Your task to perform on an android device: Open calendar and show me the third week of next month Image 0: 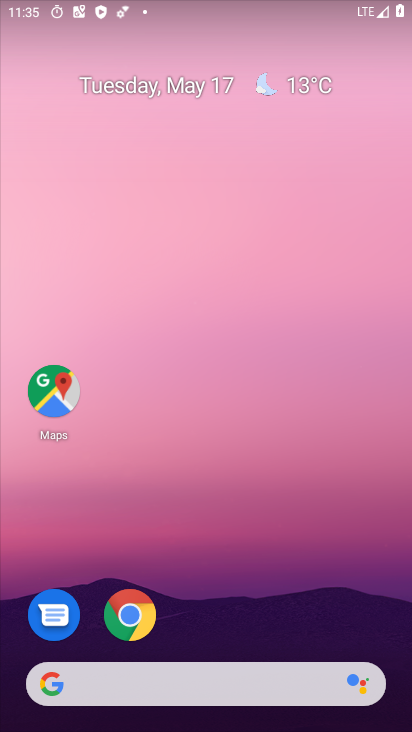
Step 0: press home button
Your task to perform on an android device: Open calendar and show me the third week of next month Image 1: 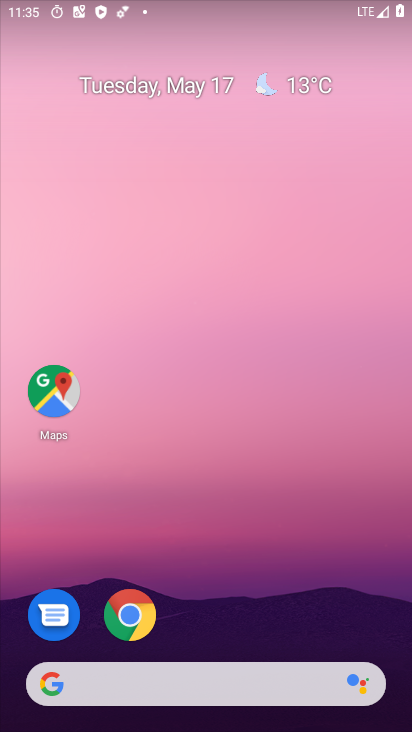
Step 1: drag from (222, 638) to (335, 194)
Your task to perform on an android device: Open calendar and show me the third week of next month Image 2: 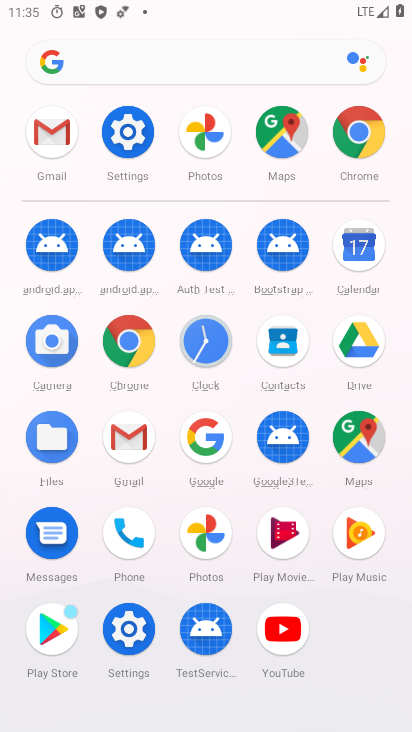
Step 2: click (354, 261)
Your task to perform on an android device: Open calendar and show me the third week of next month Image 3: 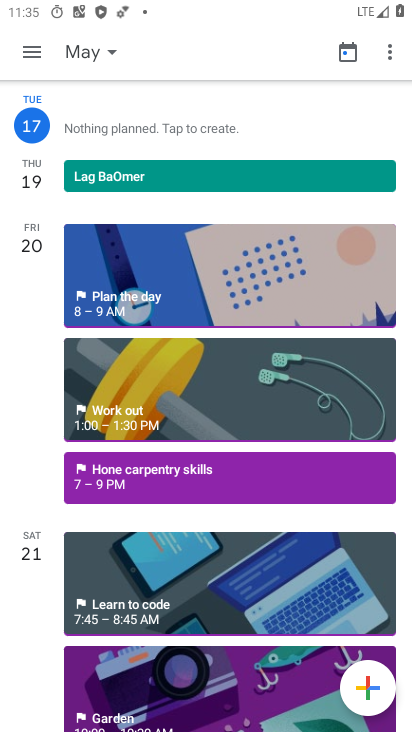
Step 3: click (84, 55)
Your task to perform on an android device: Open calendar and show me the third week of next month Image 4: 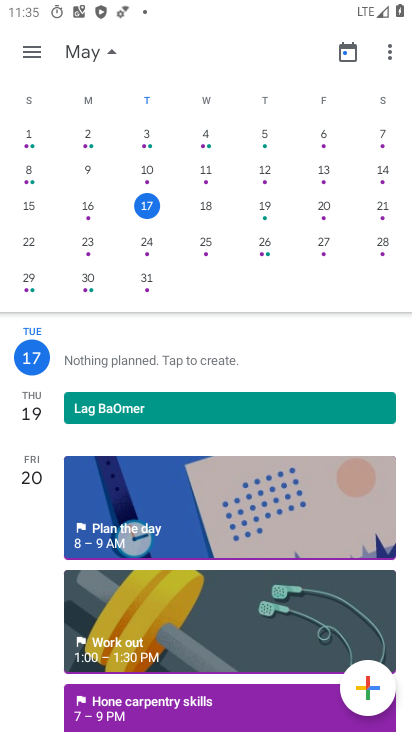
Step 4: drag from (371, 192) to (16, 207)
Your task to perform on an android device: Open calendar and show me the third week of next month Image 5: 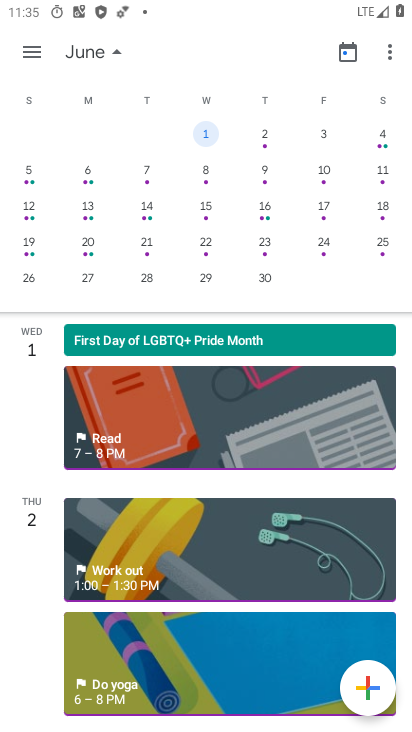
Step 5: click (31, 215)
Your task to perform on an android device: Open calendar and show me the third week of next month Image 6: 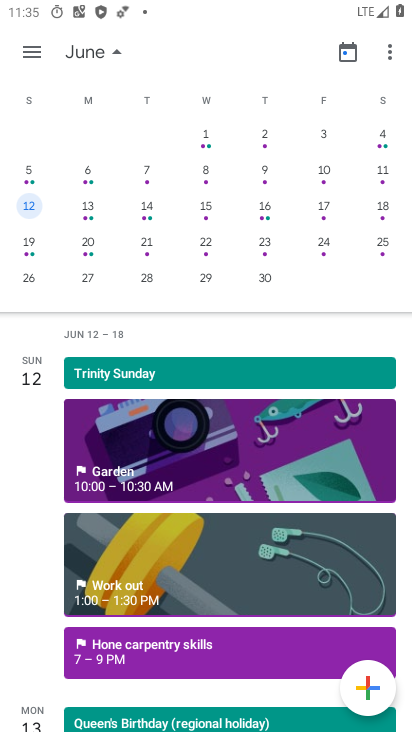
Step 6: click (31, 51)
Your task to perform on an android device: Open calendar and show me the third week of next month Image 7: 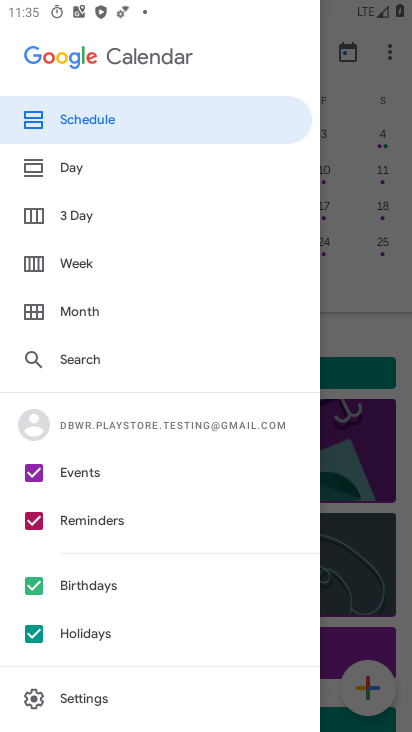
Step 7: click (83, 265)
Your task to perform on an android device: Open calendar and show me the third week of next month Image 8: 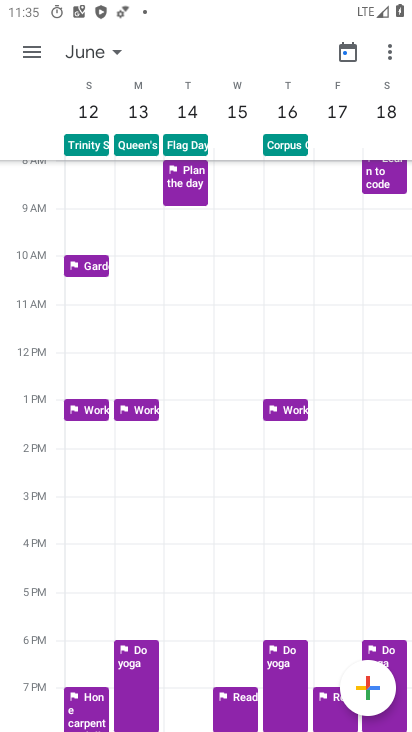
Step 8: click (42, 48)
Your task to perform on an android device: Open calendar and show me the third week of next month Image 9: 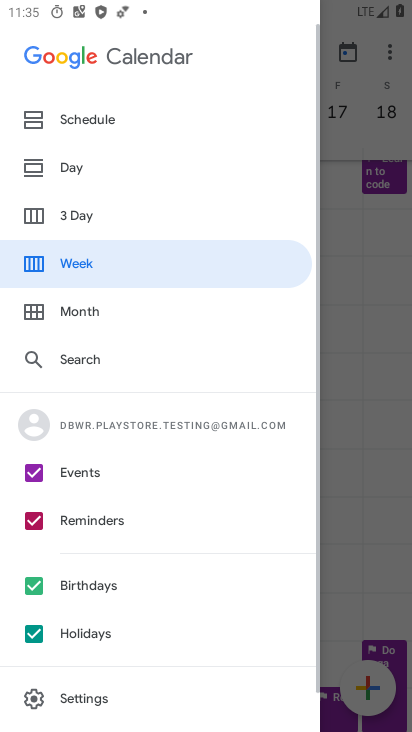
Step 9: click (76, 123)
Your task to perform on an android device: Open calendar and show me the third week of next month Image 10: 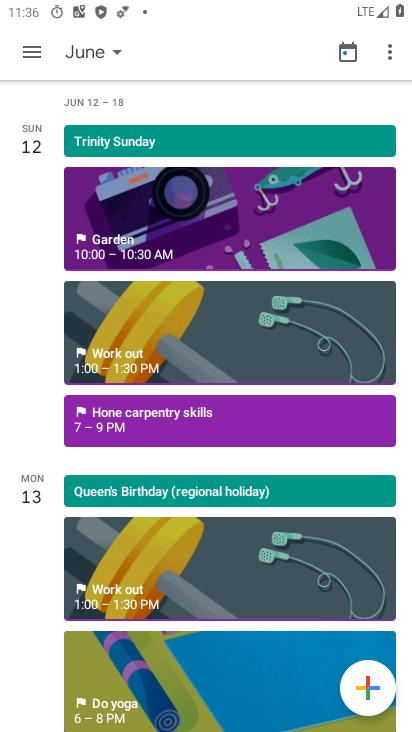
Step 10: click (32, 49)
Your task to perform on an android device: Open calendar and show me the third week of next month Image 11: 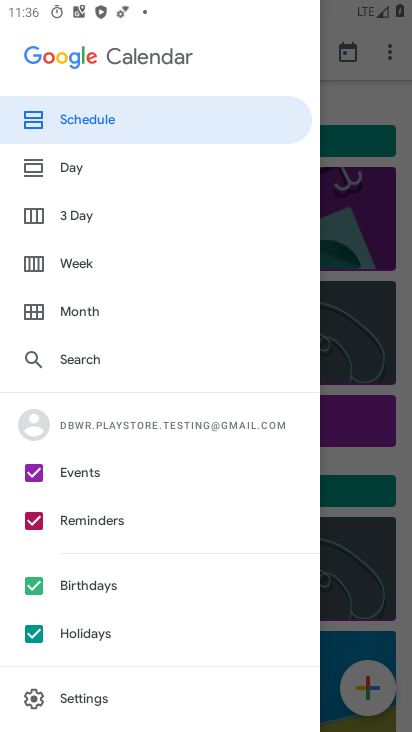
Step 11: click (84, 254)
Your task to perform on an android device: Open calendar and show me the third week of next month Image 12: 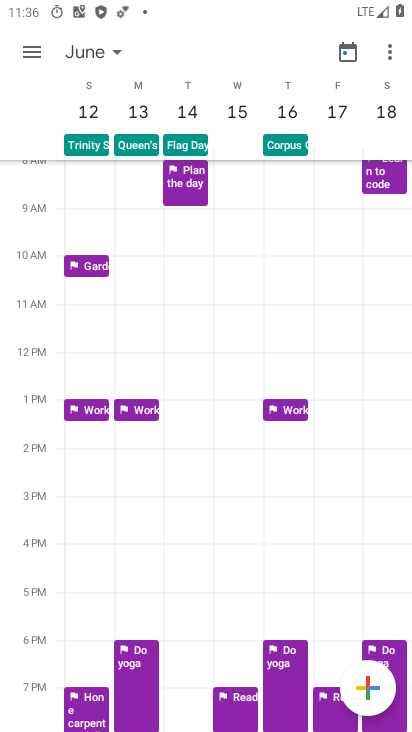
Step 12: task complete